Your task to perform on an android device: Open Amazon Image 0: 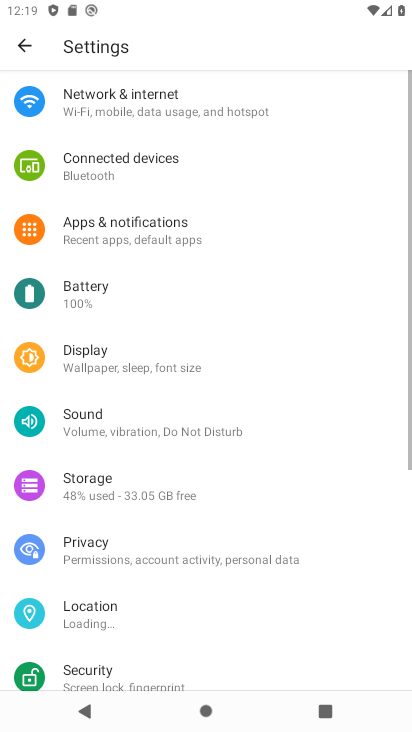
Step 0: press home button
Your task to perform on an android device: Open Amazon Image 1: 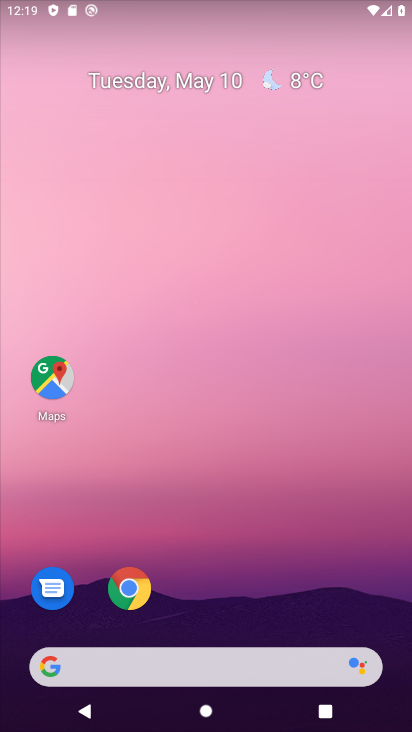
Step 1: click (130, 599)
Your task to perform on an android device: Open Amazon Image 2: 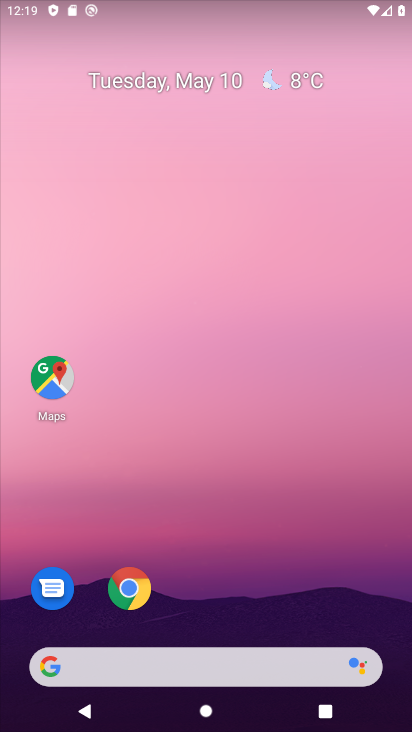
Step 2: click (130, 596)
Your task to perform on an android device: Open Amazon Image 3: 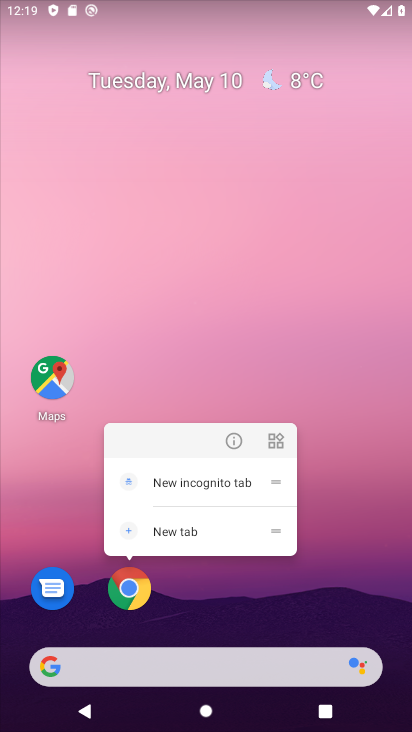
Step 3: click (138, 593)
Your task to perform on an android device: Open Amazon Image 4: 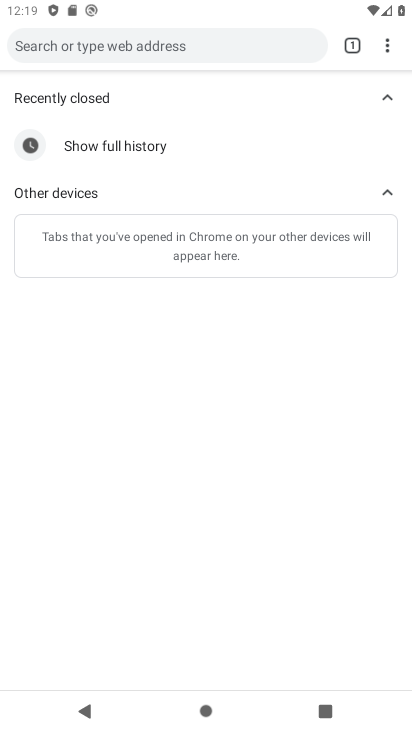
Step 4: click (254, 46)
Your task to perform on an android device: Open Amazon Image 5: 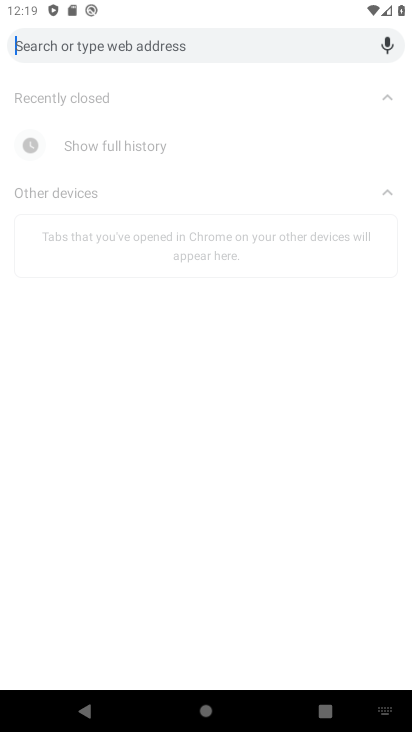
Step 5: type "amazon"
Your task to perform on an android device: Open Amazon Image 6: 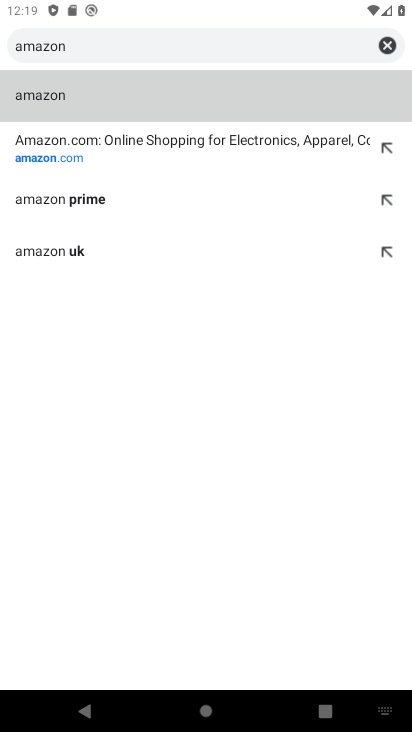
Step 6: click (71, 166)
Your task to perform on an android device: Open Amazon Image 7: 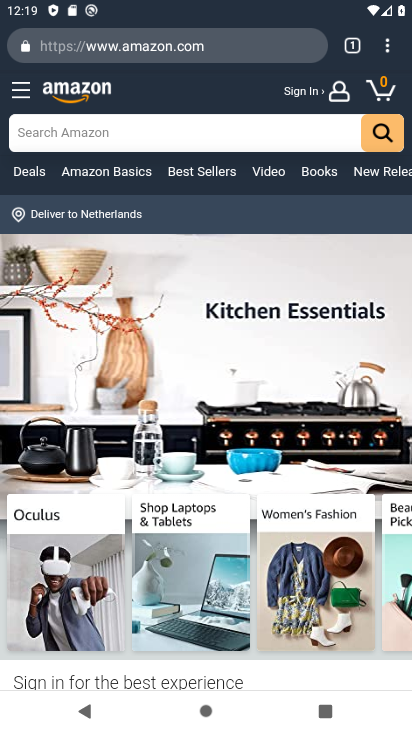
Step 7: task complete